Your task to perform on an android device: open wifi settings Image 0: 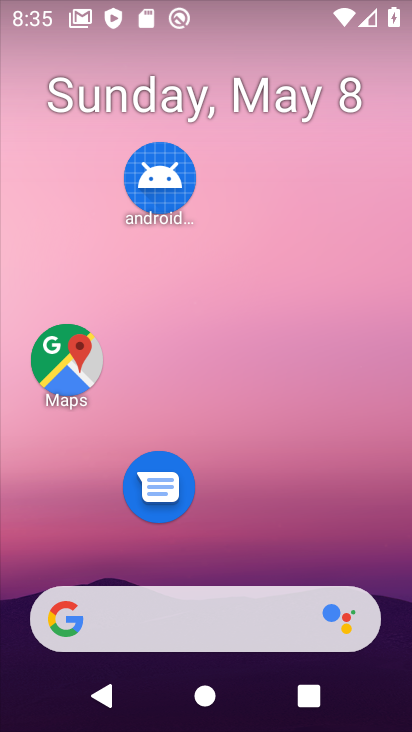
Step 0: drag from (283, 523) to (320, 175)
Your task to perform on an android device: open wifi settings Image 1: 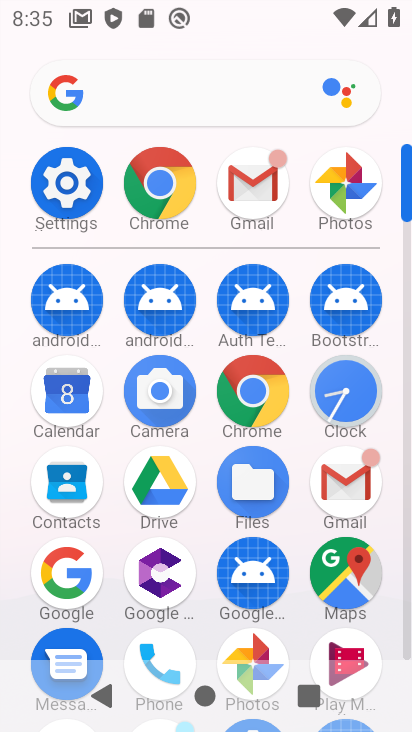
Step 1: click (48, 200)
Your task to perform on an android device: open wifi settings Image 2: 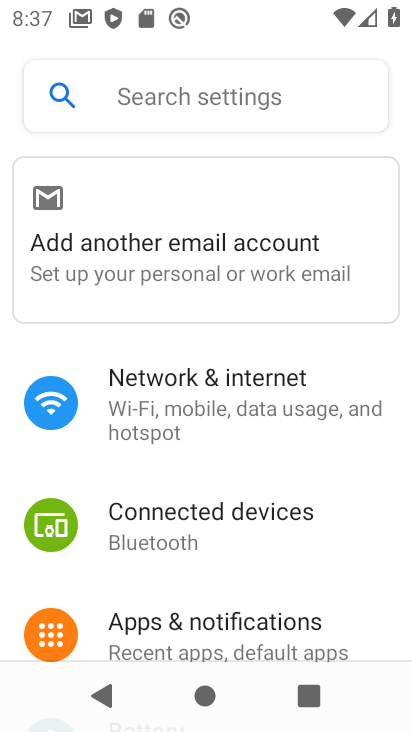
Step 2: press home button
Your task to perform on an android device: open wifi settings Image 3: 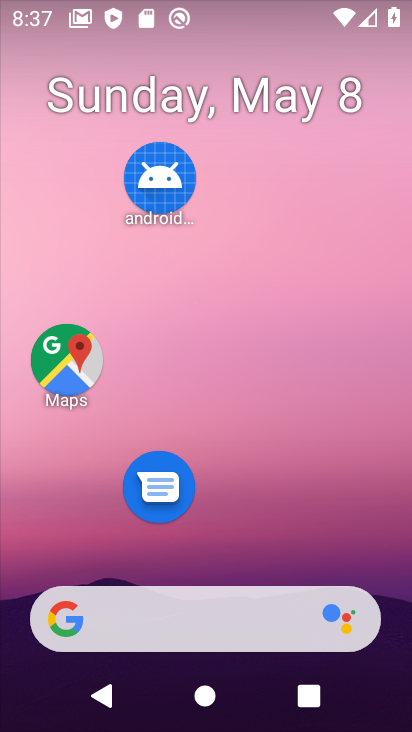
Step 3: drag from (236, 546) to (262, 99)
Your task to perform on an android device: open wifi settings Image 4: 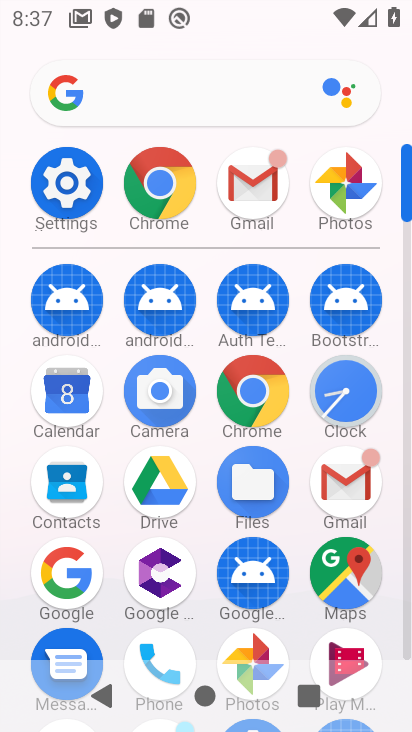
Step 4: click (82, 180)
Your task to perform on an android device: open wifi settings Image 5: 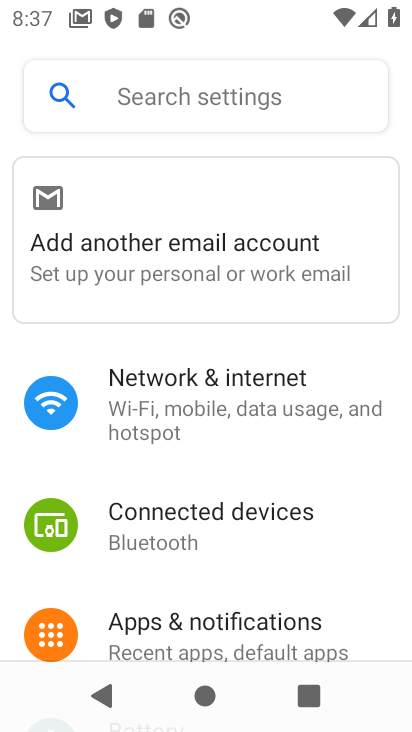
Step 5: click (248, 214)
Your task to perform on an android device: open wifi settings Image 6: 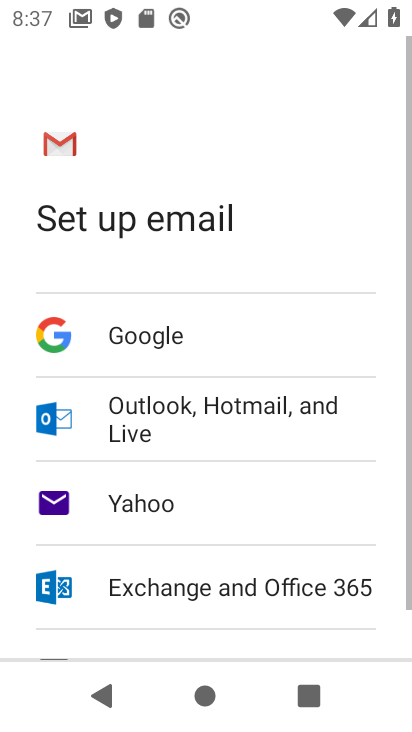
Step 6: press back button
Your task to perform on an android device: open wifi settings Image 7: 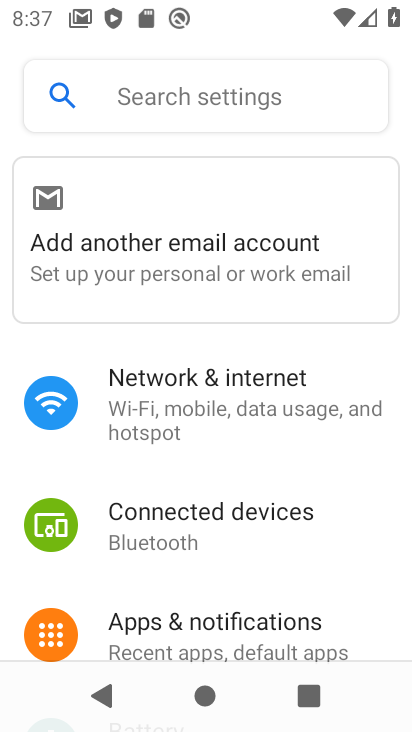
Step 7: click (165, 232)
Your task to perform on an android device: open wifi settings Image 8: 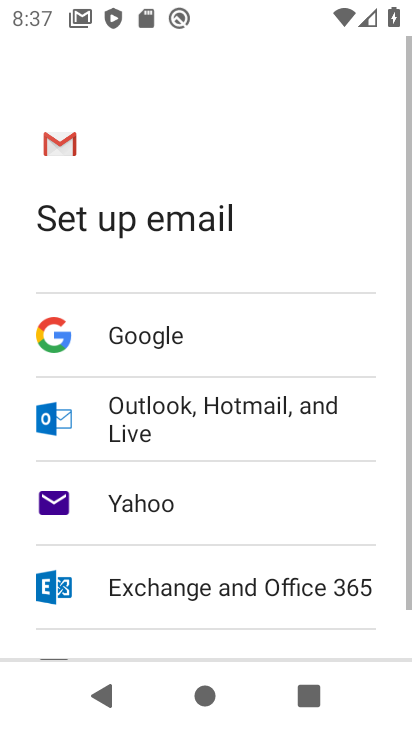
Step 8: press back button
Your task to perform on an android device: open wifi settings Image 9: 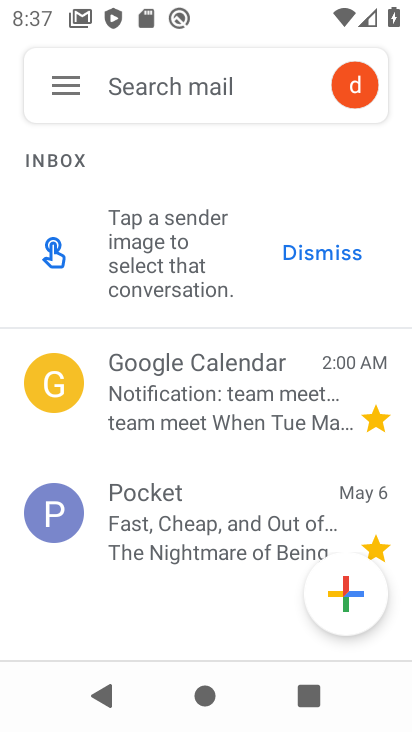
Step 9: press back button
Your task to perform on an android device: open wifi settings Image 10: 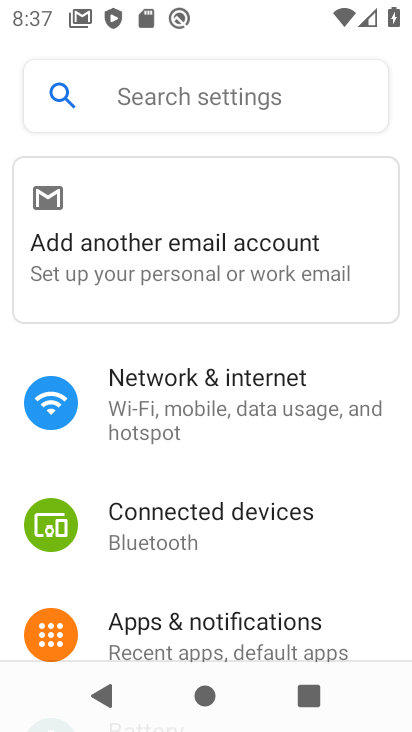
Step 10: click (212, 247)
Your task to perform on an android device: open wifi settings Image 11: 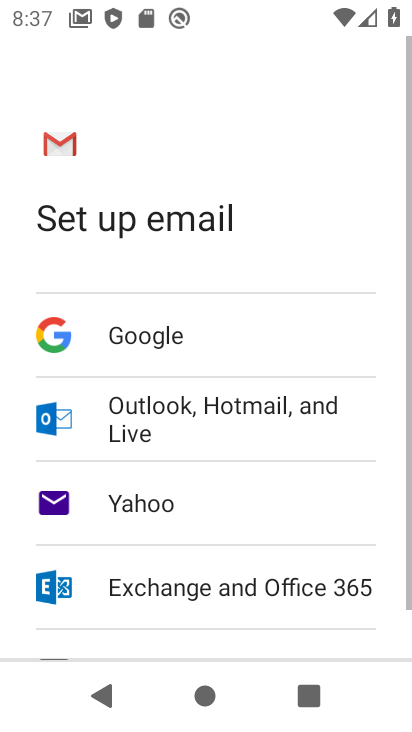
Step 11: press back button
Your task to perform on an android device: open wifi settings Image 12: 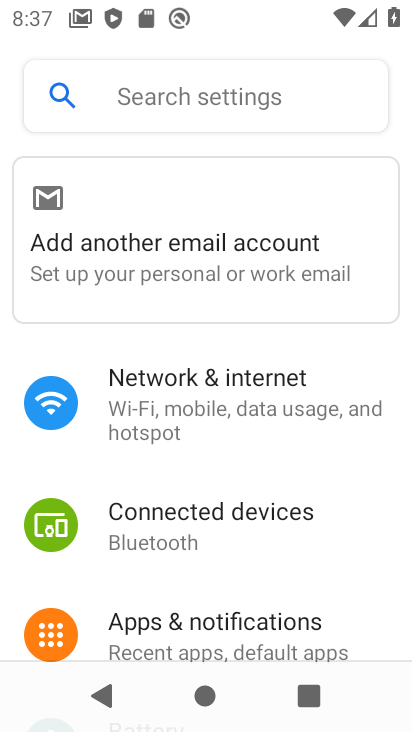
Step 12: click (268, 397)
Your task to perform on an android device: open wifi settings Image 13: 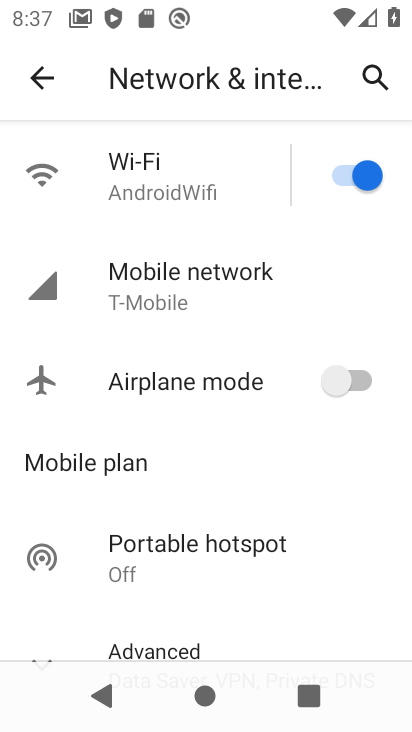
Step 13: task complete